Your task to perform on an android device: Open Maps and search for coffee Image 0: 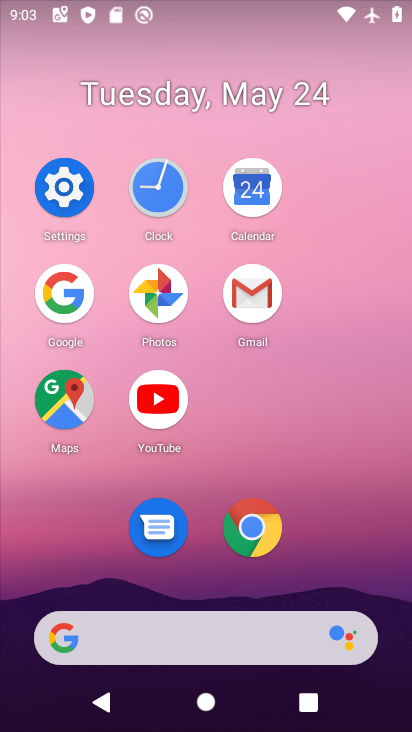
Step 0: click (77, 404)
Your task to perform on an android device: Open Maps and search for coffee Image 1: 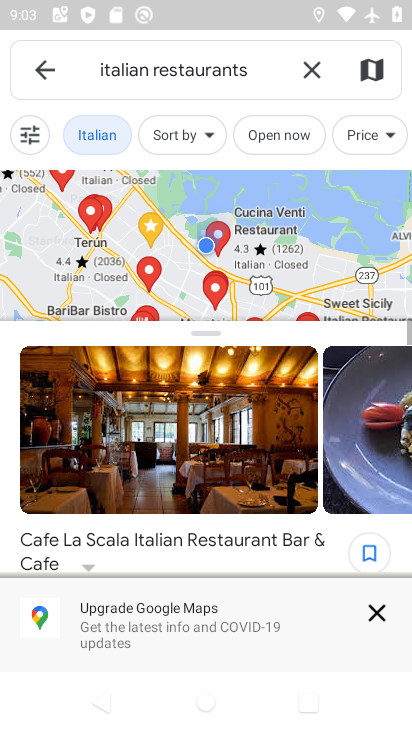
Step 1: click (316, 62)
Your task to perform on an android device: Open Maps and search for coffee Image 2: 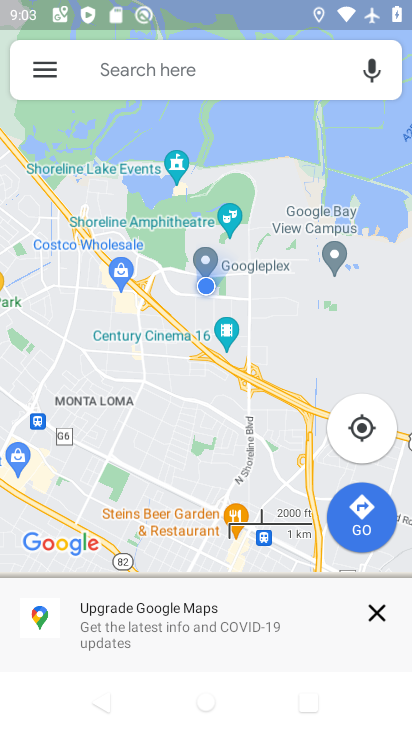
Step 2: click (158, 74)
Your task to perform on an android device: Open Maps and search for coffee Image 3: 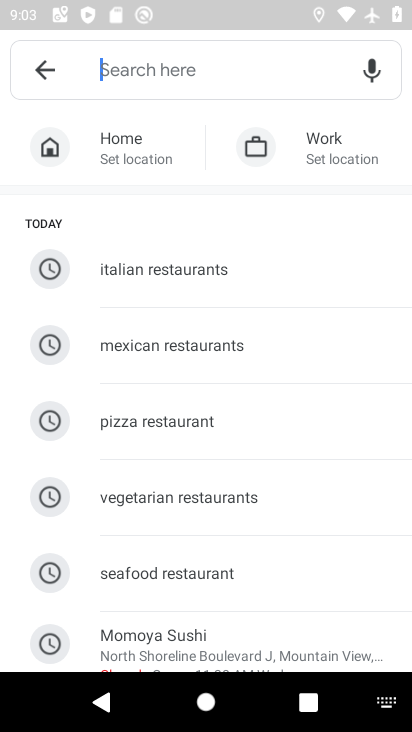
Step 3: type "coffee"
Your task to perform on an android device: Open Maps and search for coffee Image 4: 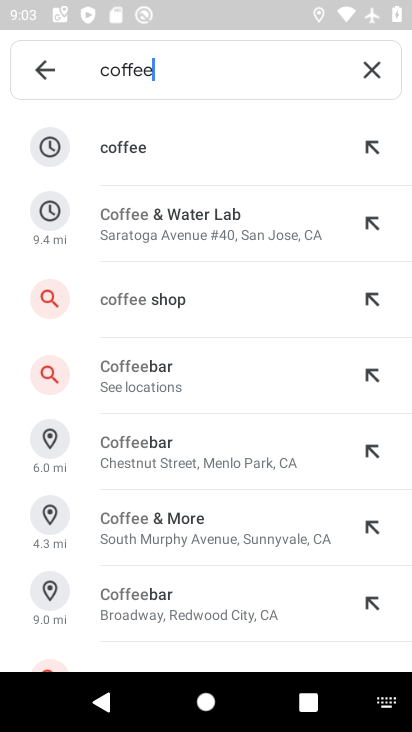
Step 4: task complete